Your task to perform on an android device: Go to ESPN.com Image 0: 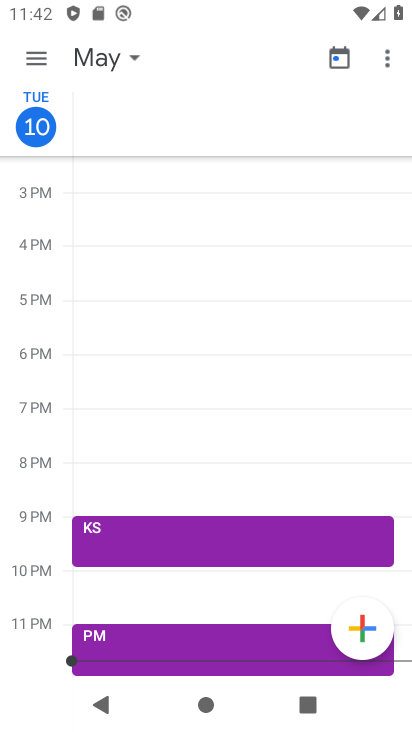
Step 0: press home button
Your task to perform on an android device: Go to ESPN.com Image 1: 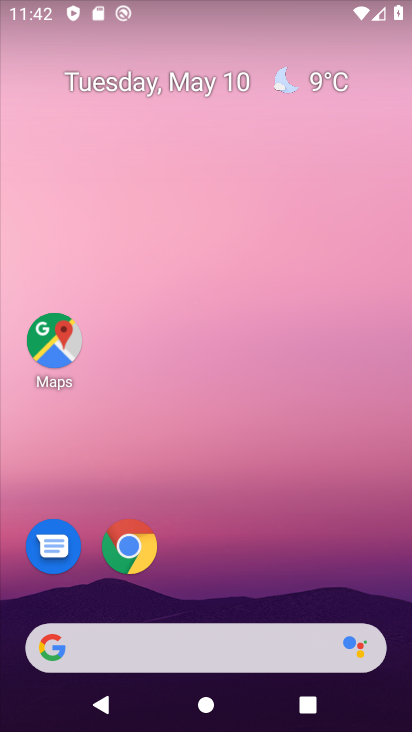
Step 1: click (160, 641)
Your task to perform on an android device: Go to ESPN.com Image 2: 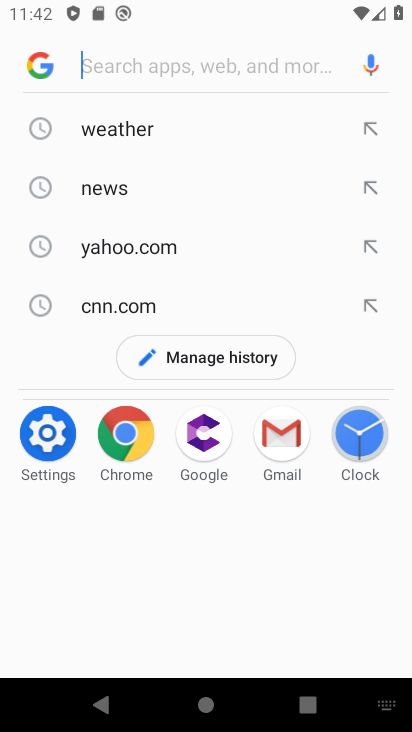
Step 2: type "espn.com"
Your task to perform on an android device: Go to ESPN.com Image 3: 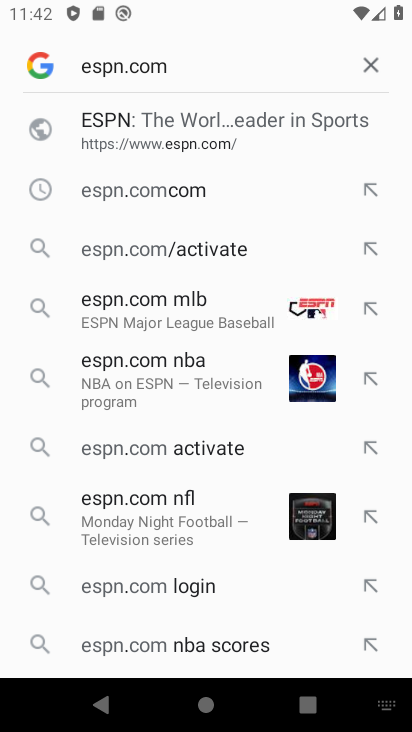
Step 3: click (192, 134)
Your task to perform on an android device: Go to ESPN.com Image 4: 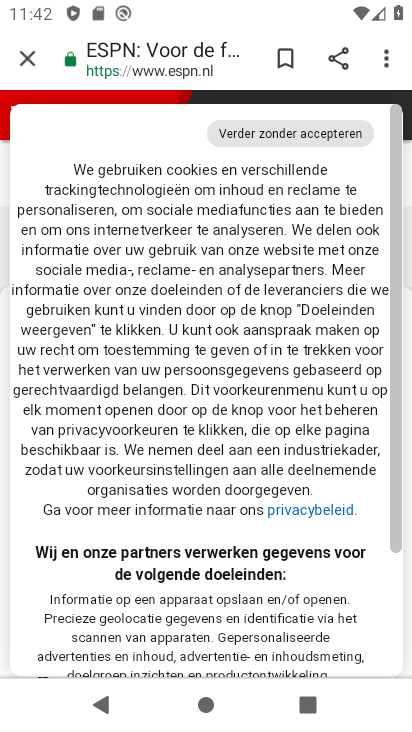
Step 4: task complete